Your task to perform on an android device: find snoozed emails in the gmail app Image 0: 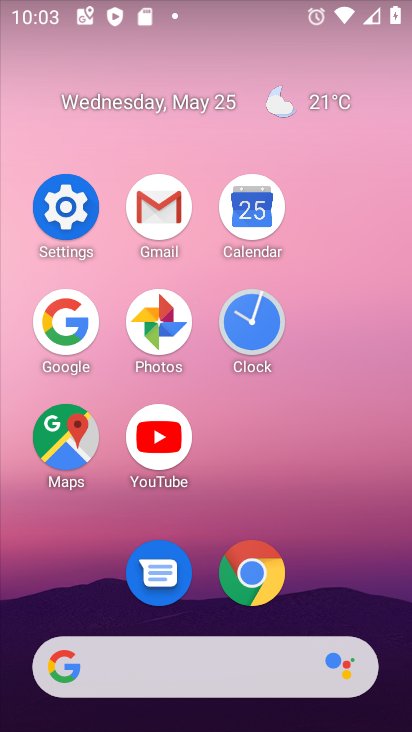
Step 0: click (143, 217)
Your task to perform on an android device: find snoozed emails in the gmail app Image 1: 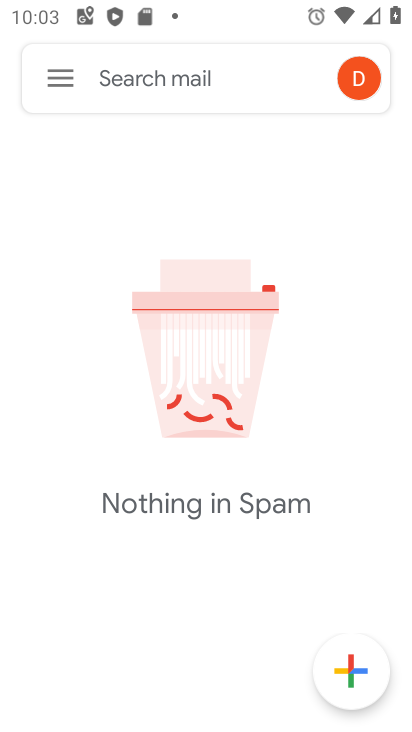
Step 1: click (54, 88)
Your task to perform on an android device: find snoozed emails in the gmail app Image 2: 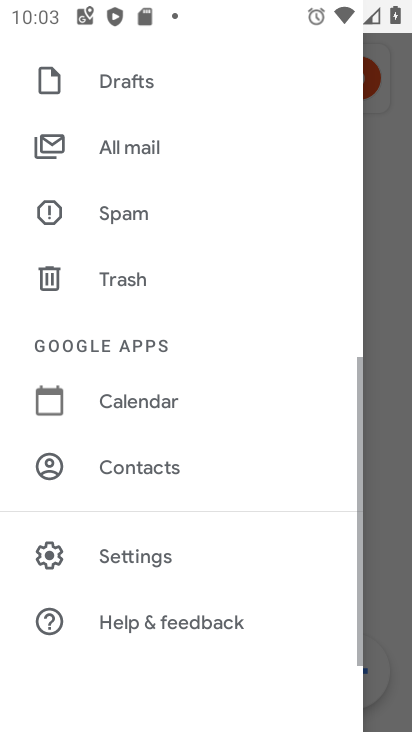
Step 2: drag from (195, 169) to (190, 582)
Your task to perform on an android device: find snoozed emails in the gmail app Image 3: 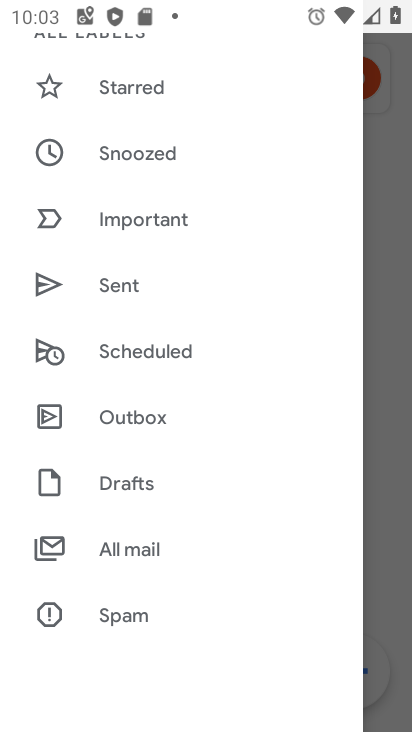
Step 3: click (181, 158)
Your task to perform on an android device: find snoozed emails in the gmail app Image 4: 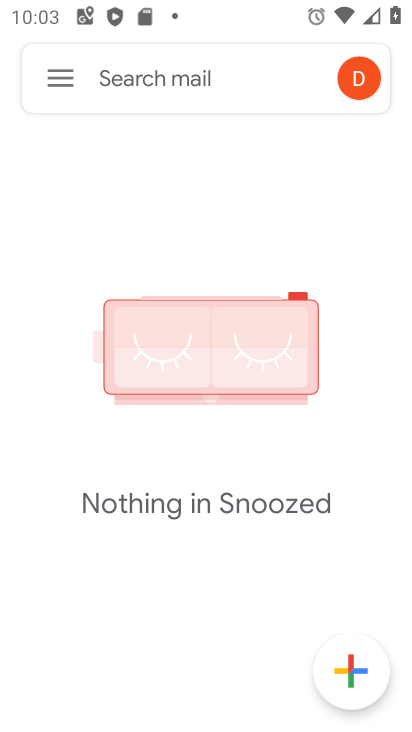
Step 4: task complete